Your task to perform on an android device: turn on javascript in the chrome app Image 0: 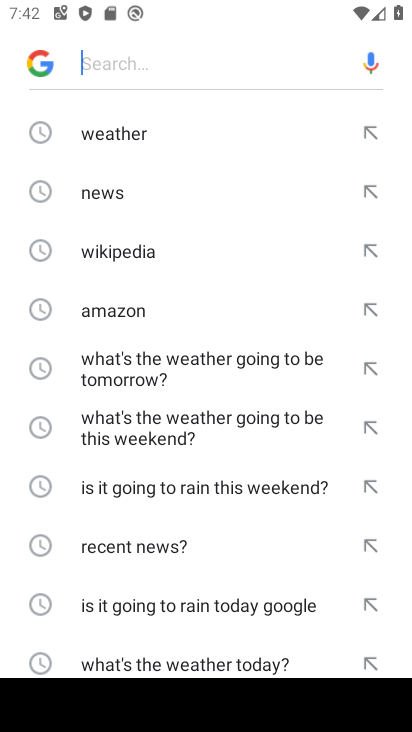
Step 0: press home button
Your task to perform on an android device: turn on javascript in the chrome app Image 1: 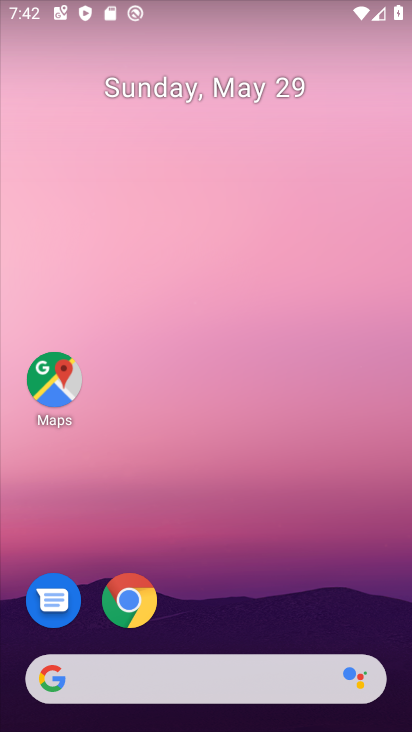
Step 1: click (134, 597)
Your task to perform on an android device: turn on javascript in the chrome app Image 2: 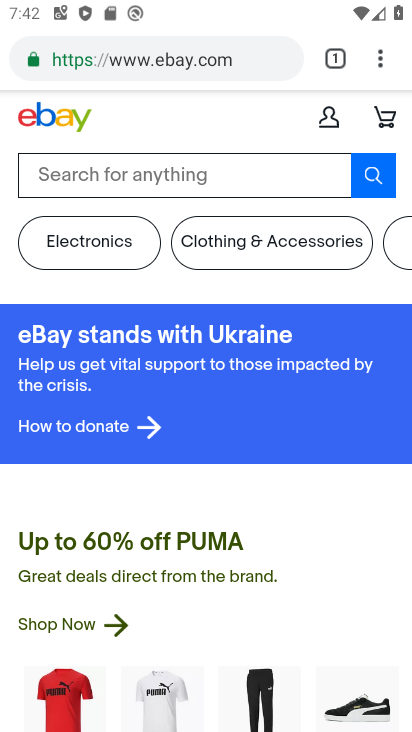
Step 2: click (388, 53)
Your task to perform on an android device: turn on javascript in the chrome app Image 3: 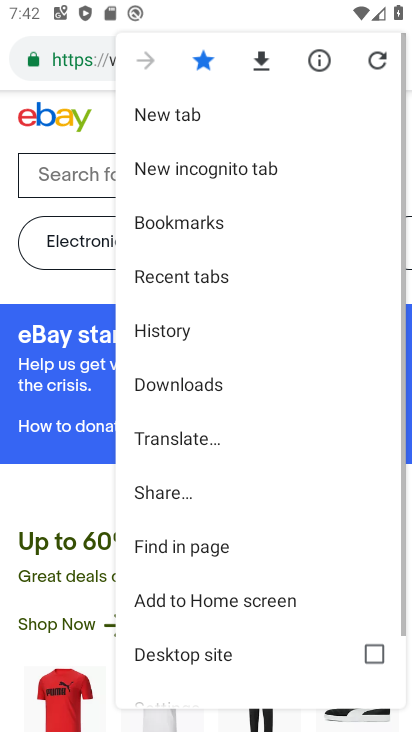
Step 3: drag from (153, 661) to (199, 373)
Your task to perform on an android device: turn on javascript in the chrome app Image 4: 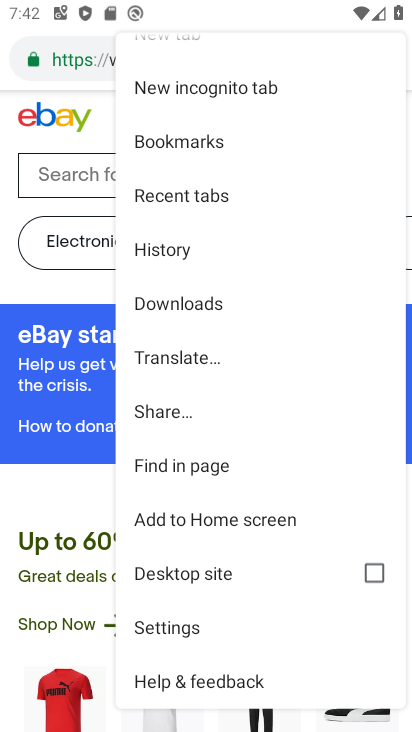
Step 4: click (190, 628)
Your task to perform on an android device: turn on javascript in the chrome app Image 5: 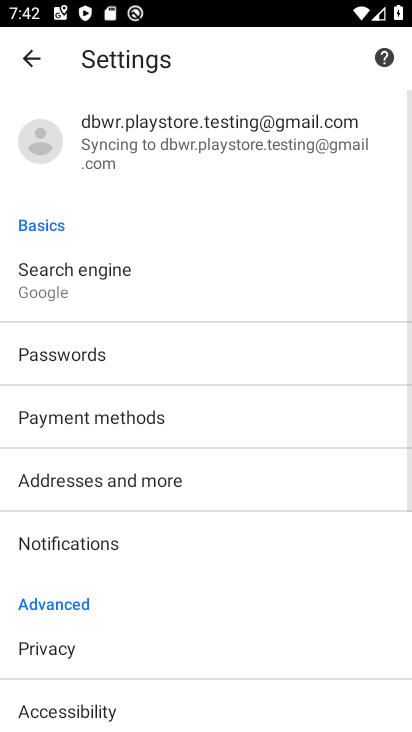
Step 5: drag from (98, 649) to (157, 294)
Your task to perform on an android device: turn on javascript in the chrome app Image 6: 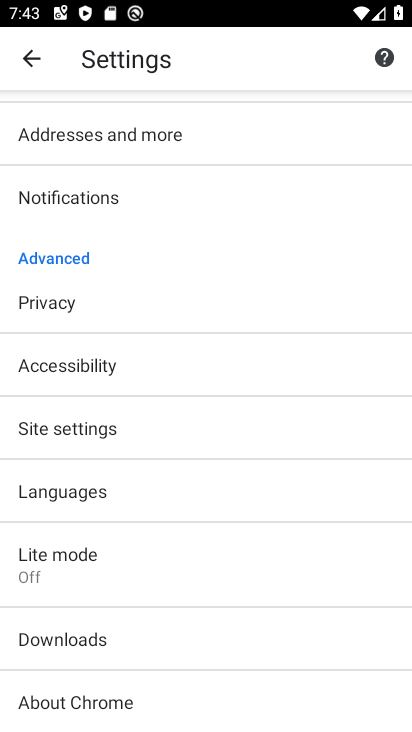
Step 6: click (108, 437)
Your task to perform on an android device: turn on javascript in the chrome app Image 7: 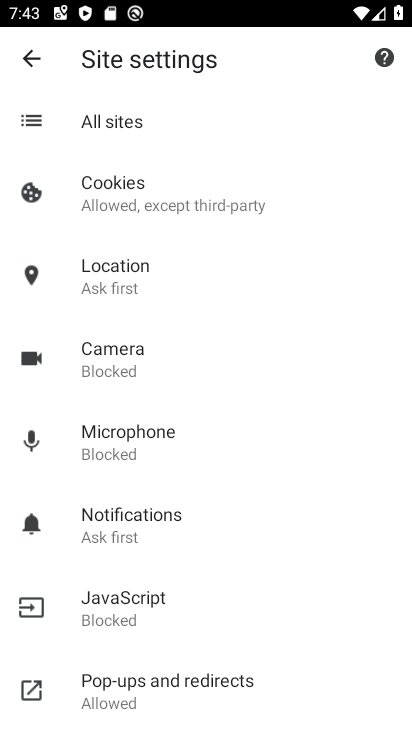
Step 7: click (163, 622)
Your task to perform on an android device: turn on javascript in the chrome app Image 8: 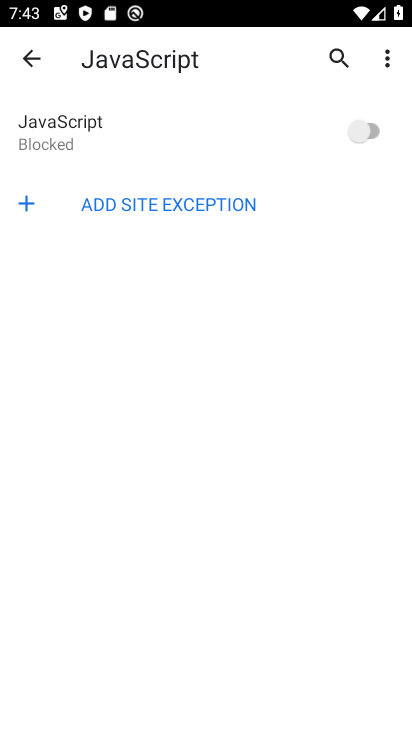
Step 8: click (387, 129)
Your task to perform on an android device: turn on javascript in the chrome app Image 9: 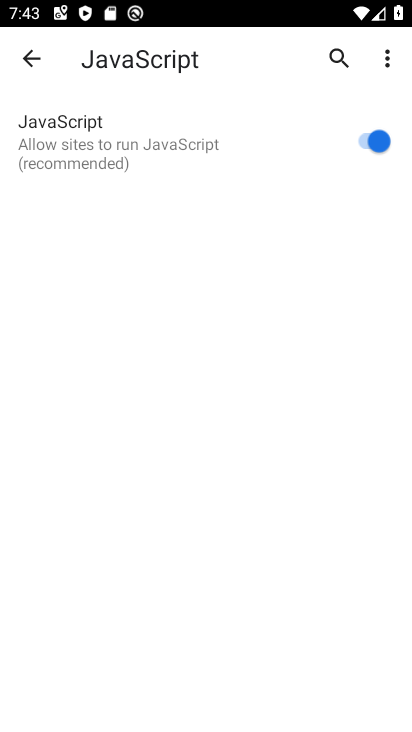
Step 9: task complete